Your task to perform on an android device: turn on translation in the chrome app Image 0: 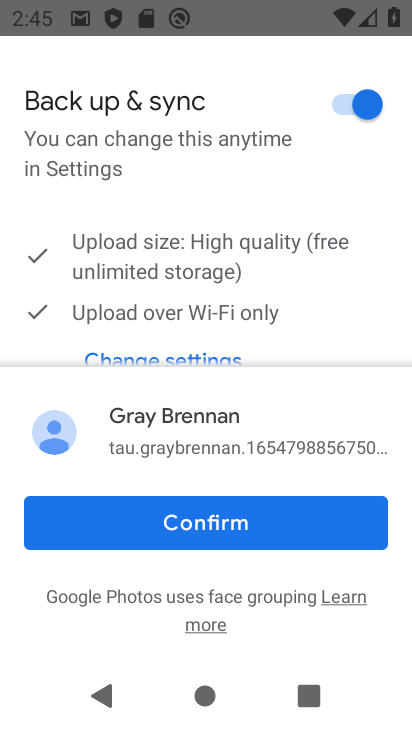
Step 0: click (329, 528)
Your task to perform on an android device: turn on translation in the chrome app Image 1: 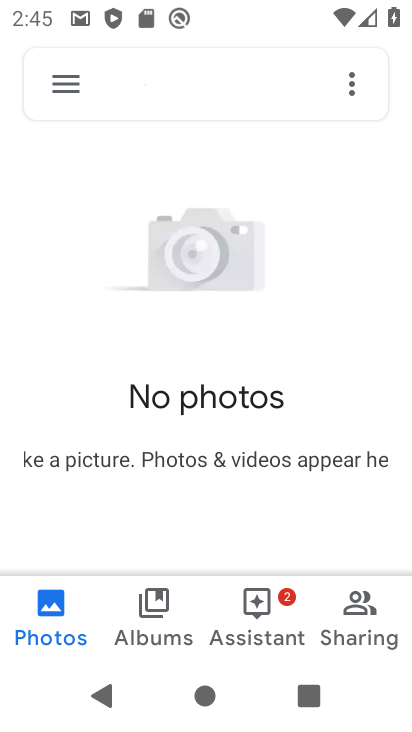
Step 1: press home button
Your task to perform on an android device: turn on translation in the chrome app Image 2: 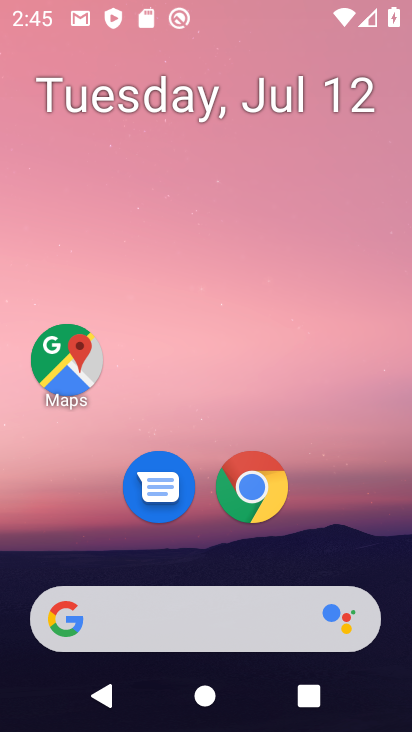
Step 2: drag from (244, 583) to (294, 96)
Your task to perform on an android device: turn on translation in the chrome app Image 3: 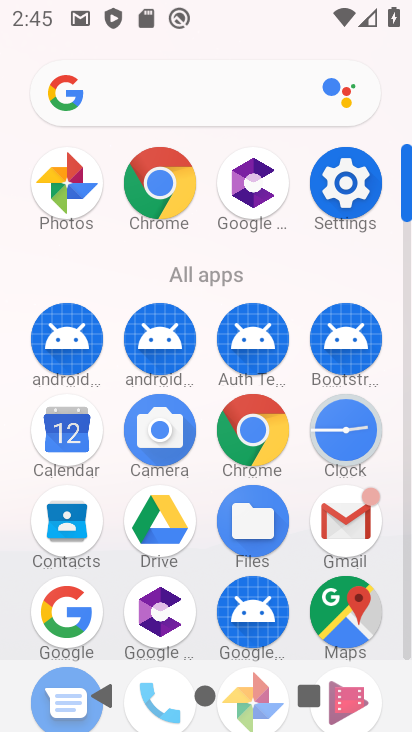
Step 3: click (167, 197)
Your task to perform on an android device: turn on translation in the chrome app Image 4: 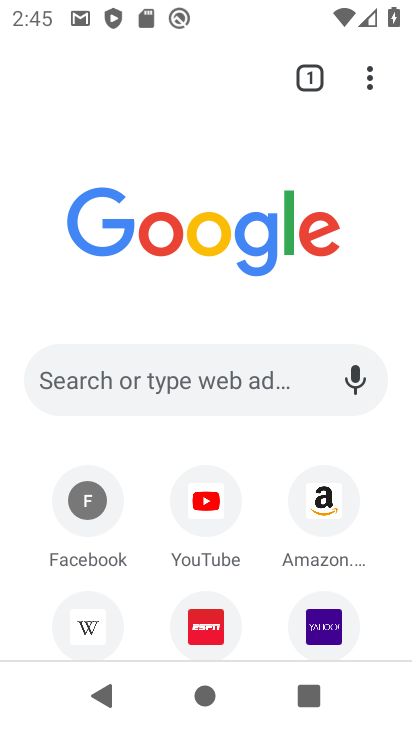
Step 4: click (367, 83)
Your task to perform on an android device: turn on translation in the chrome app Image 5: 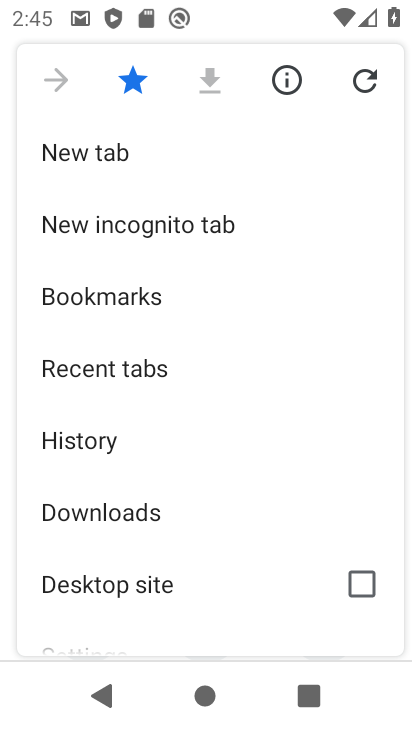
Step 5: task complete